Your task to perform on an android device: Open display settings Image 0: 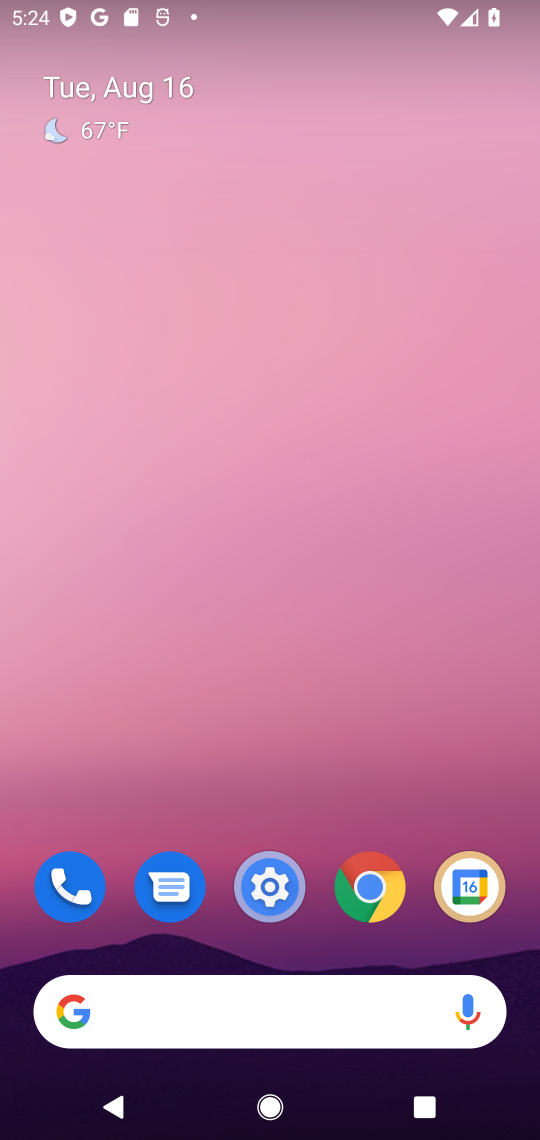
Step 0: drag from (381, 591) to (473, 26)
Your task to perform on an android device: Open display settings Image 1: 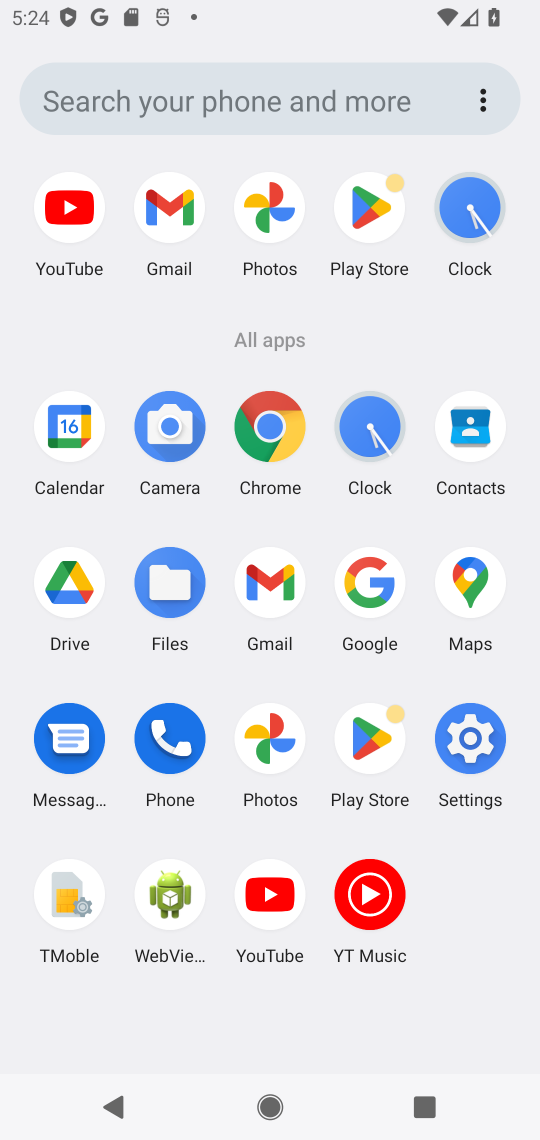
Step 1: click (483, 740)
Your task to perform on an android device: Open display settings Image 2: 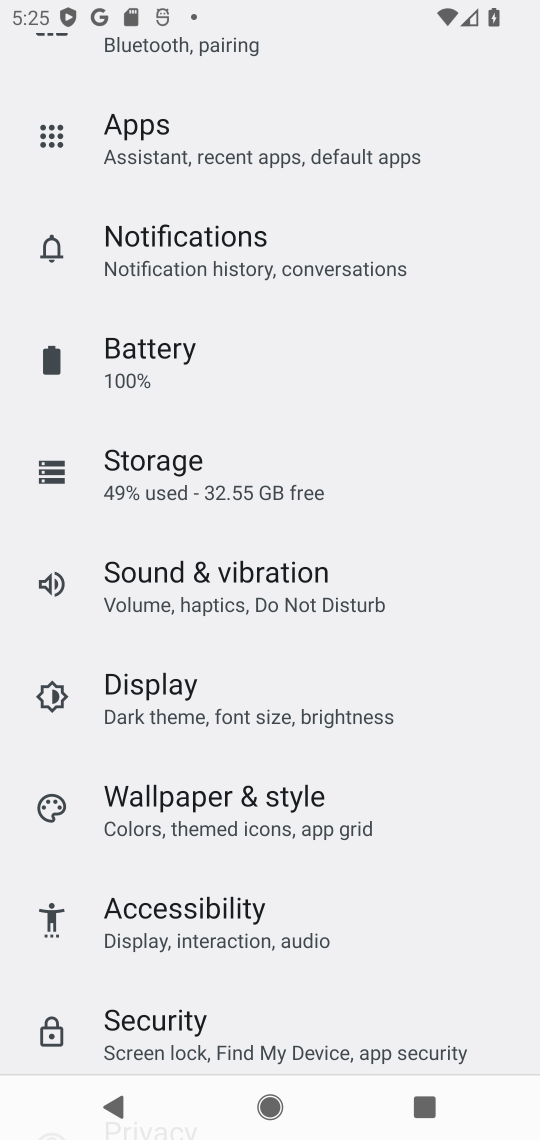
Step 2: click (139, 693)
Your task to perform on an android device: Open display settings Image 3: 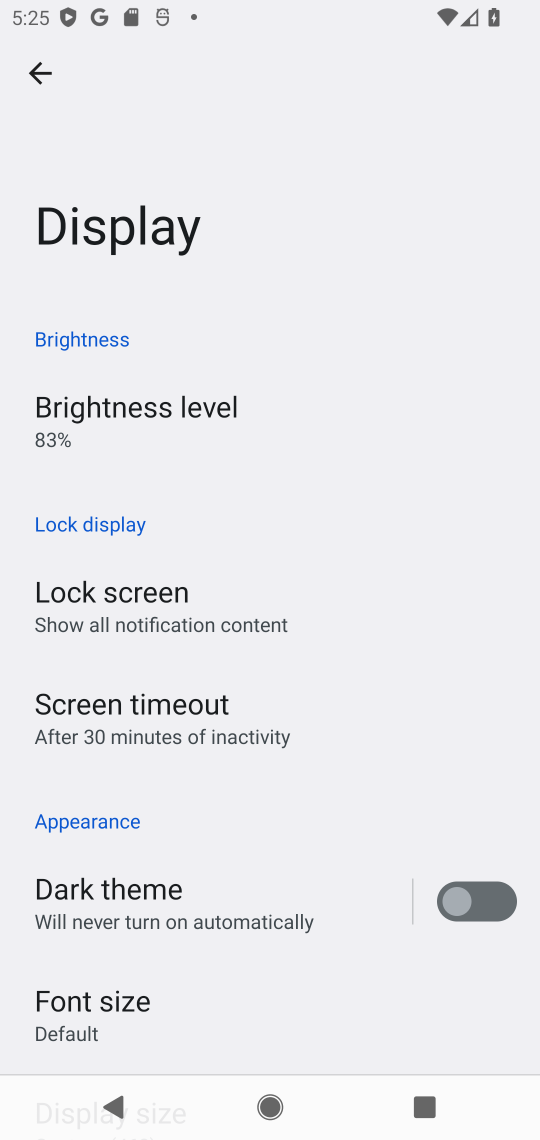
Step 3: task complete